Your task to perform on an android device: What's the weather today? Image 0: 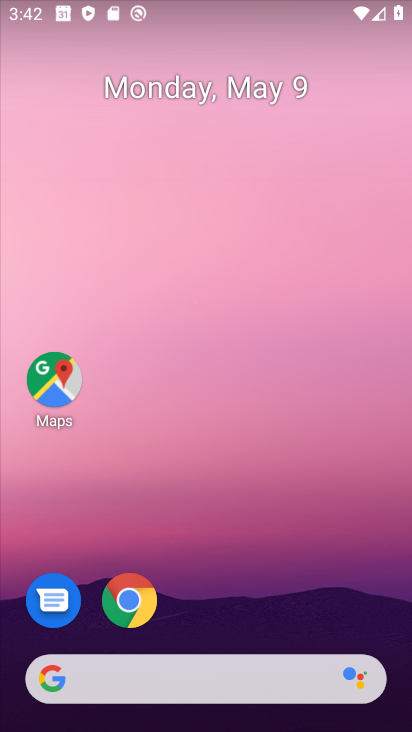
Step 0: drag from (316, 652) to (236, 34)
Your task to perform on an android device: What's the weather today? Image 1: 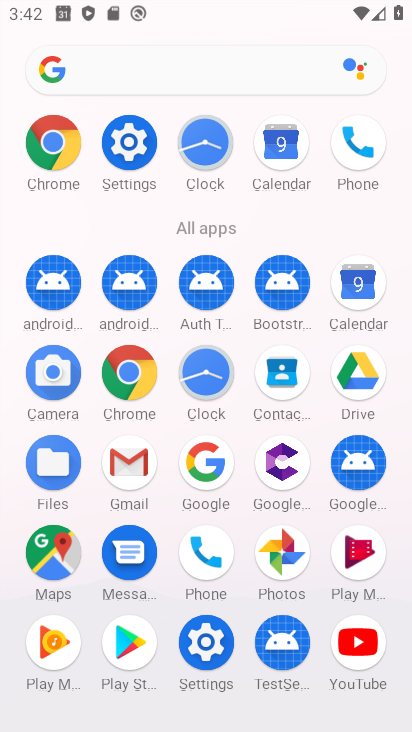
Step 1: click (114, 380)
Your task to perform on an android device: What's the weather today? Image 2: 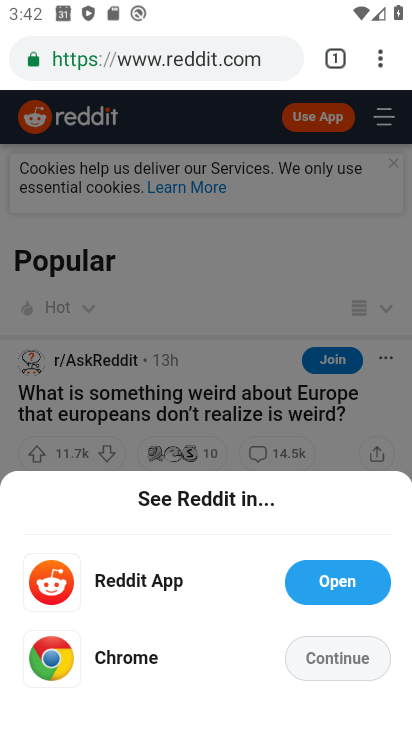
Step 2: click (228, 68)
Your task to perform on an android device: What's the weather today? Image 3: 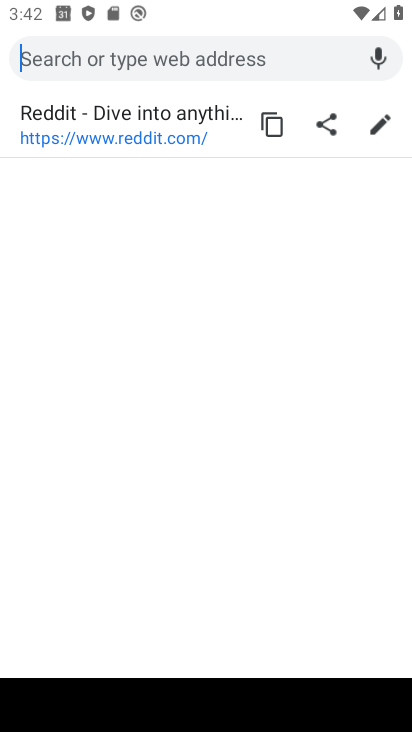
Step 3: type "weather today"
Your task to perform on an android device: What's the weather today? Image 4: 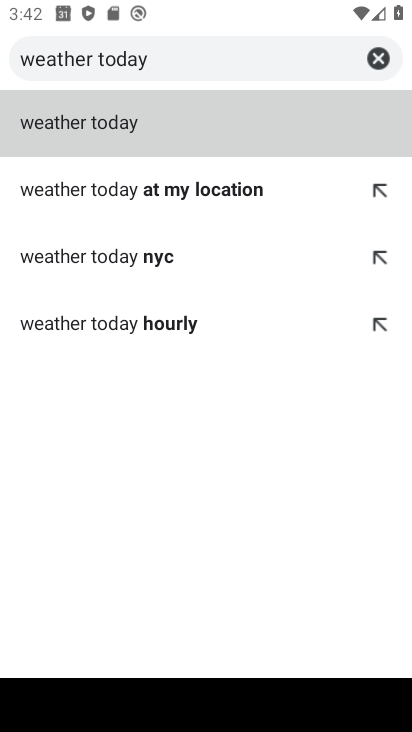
Step 4: click (165, 131)
Your task to perform on an android device: What's the weather today? Image 5: 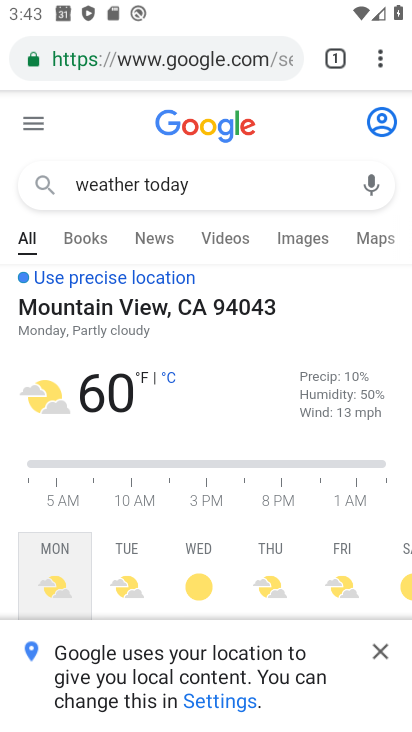
Step 5: task complete